Your task to perform on an android device: Go to notification settings Image 0: 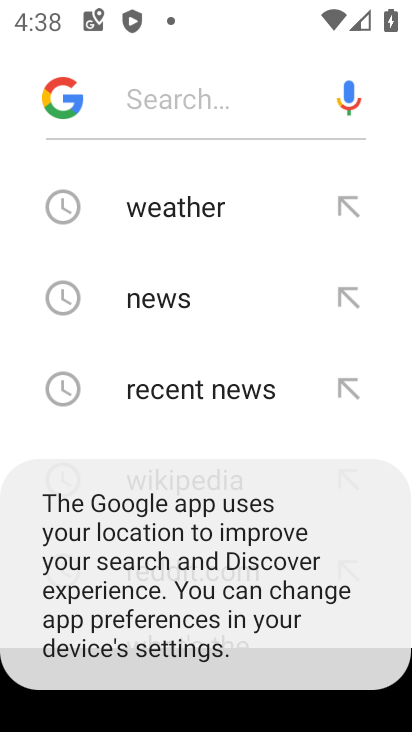
Step 0: press back button
Your task to perform on an android device: Go to notification settings Image 1: 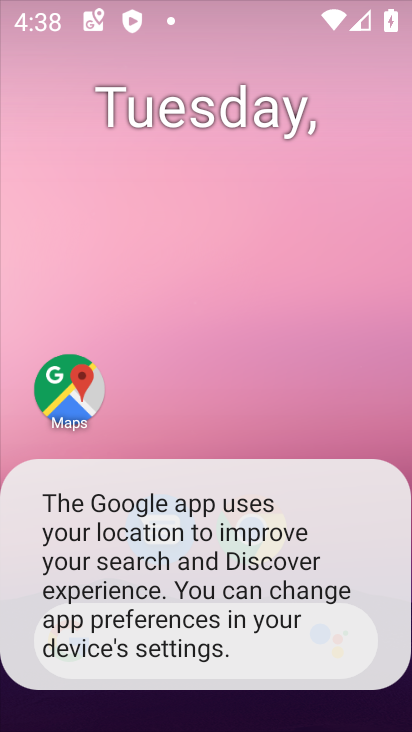
Step 1: press back button
Your task to perform on an android device: Go to notification settings Image 2: 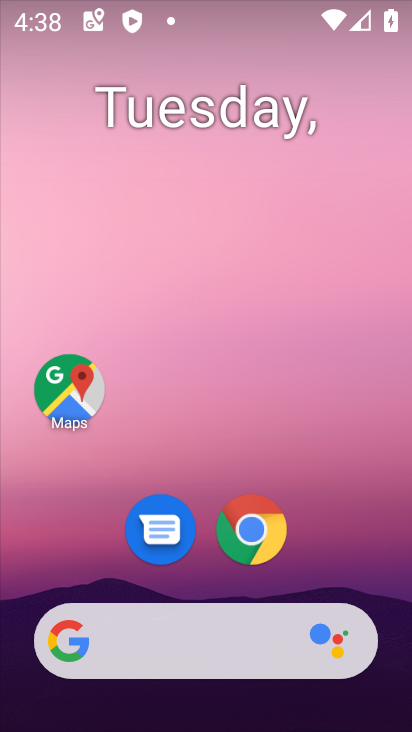
Step 2: drag from (343, 563) to (201, 4)
Your task to perform on an android device: Go to notification settings Image 3: 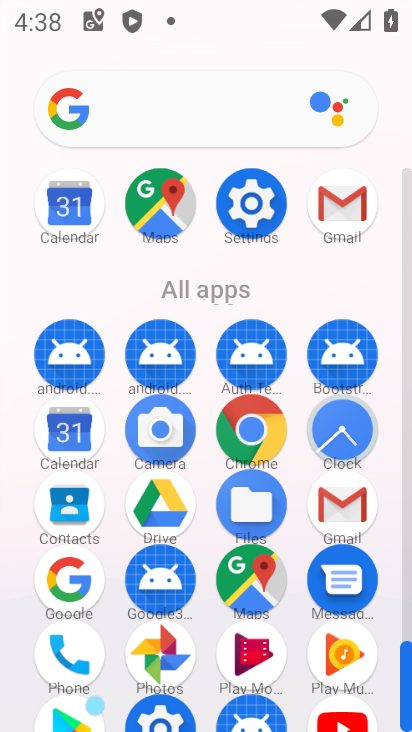
Step 3: click (242, 202)
Your task to perform on an android device: Go to notification settings Image 4: 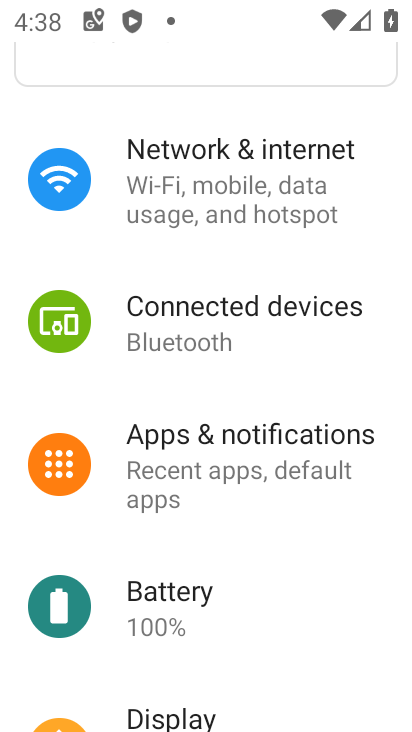
Step 4: click (215, 441)
Your task to perform on an android device: Go to notification settings Image 5: 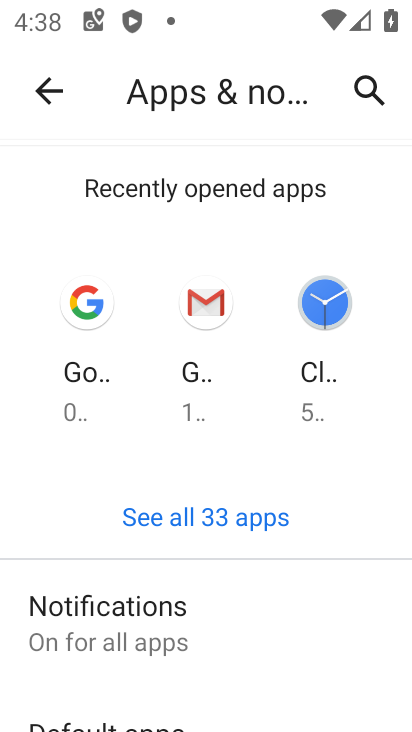
Step 5: drag from (205, 629) to (225, 157)
Your task to perform on an android device: Go to notification settings Image 6: 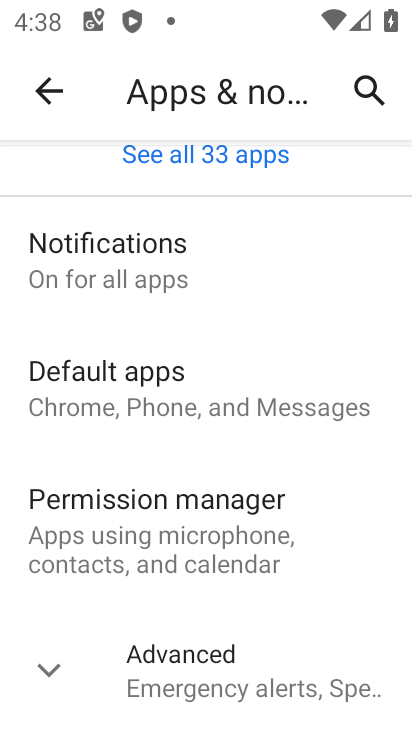
Step 6: click (49, 679)
Your task to perform on an android device: Go to notification settings Image 7: 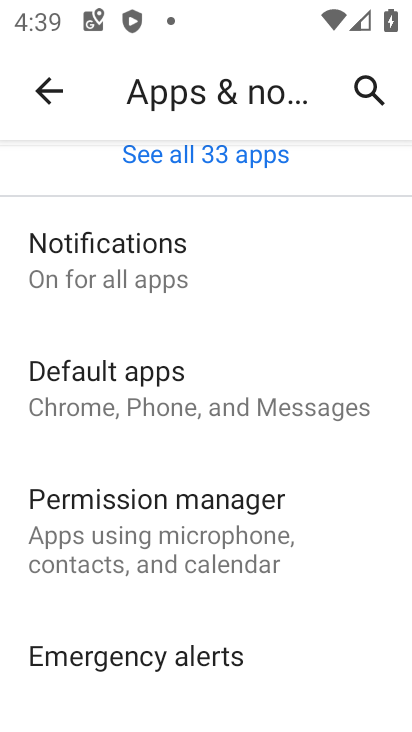
Step 7: click (211, 242)
Your task to perform on an android device: Go to notification settings Image 8: 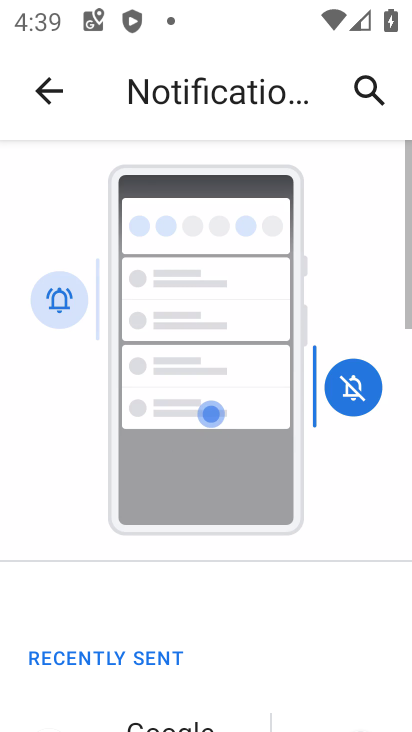
Step 8: drag from (258, 601) to (252, 170)
Your task to perform on an android device: Go to notification settings Image 9: 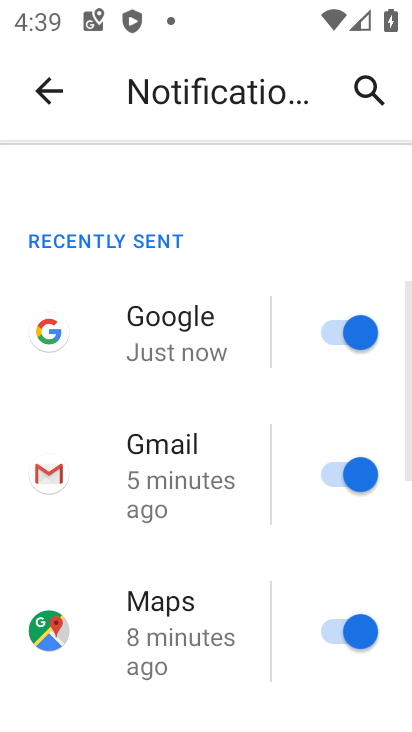
Step 9: drag from (247, 579) to (247, 179)
Your task to perform on an android device: Go to notification settings Image 10: 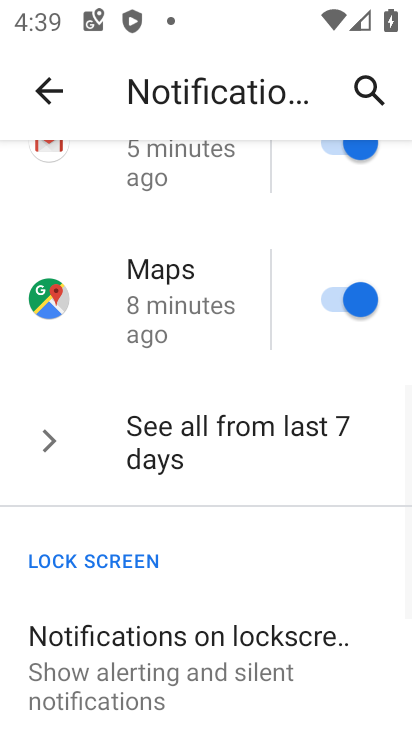
Step 10: drag from (243, 571) to (232, 199)
Your task to perform on an android device: Go to notification settings Image 11: 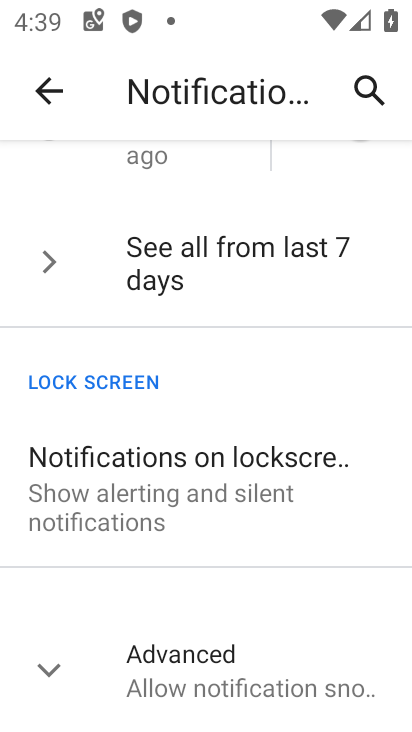
Step 11: click (67, 668)
Your task to perform on an android device: Go to notification settings Image 12: 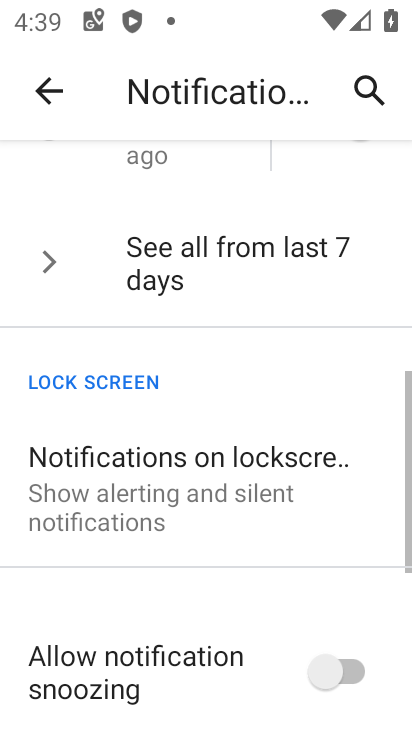
Step 12: task complete